Your task to perform on an android device: Open location settings Image 0: 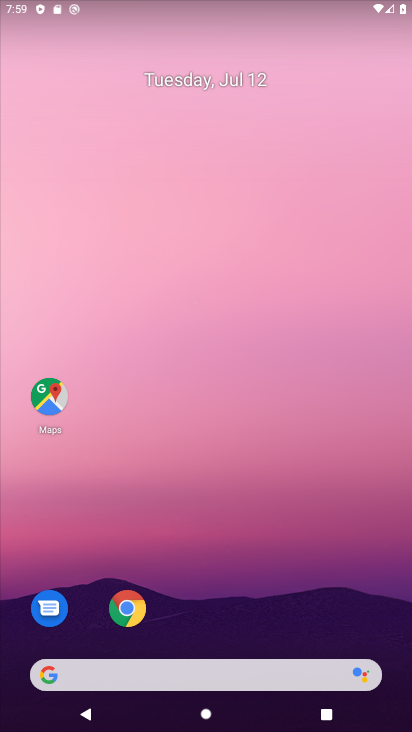
Step 0: click (242, 631)
Your task to perform on an android device: Open location settings Image 1: 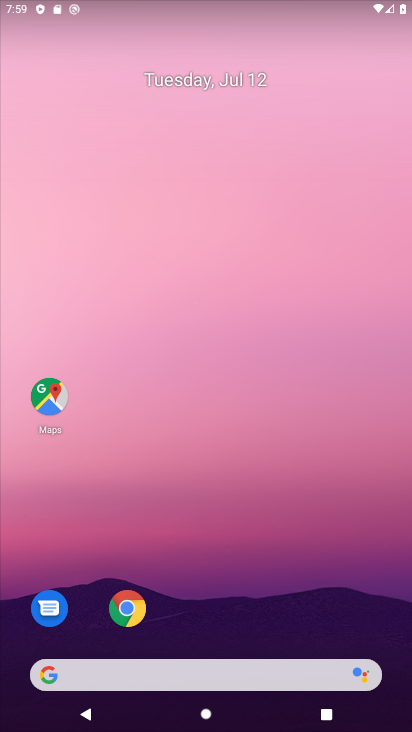
Step 1: drag from (254, 93) to (266, 545)
Your task to perform on an android device: Open location settings Image 2: 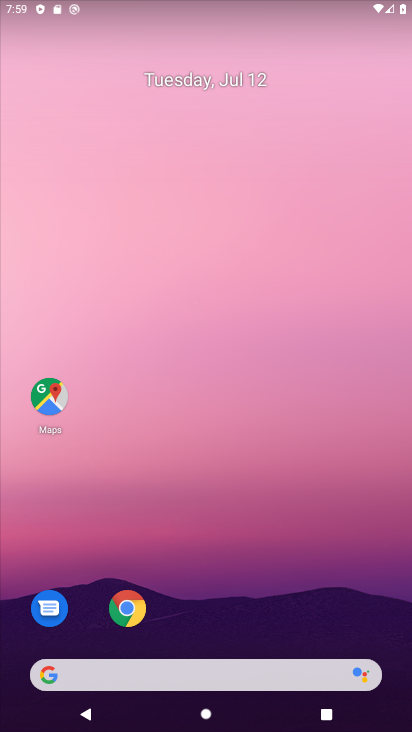
Step 2: drag from (232, 497) to (247, 628)
Your task to perform on an android device: Open location settings Image 3: 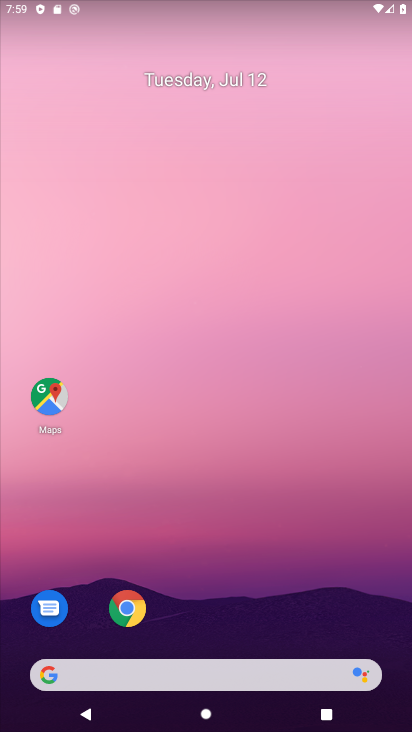
Step 3: drag from (119, 10) to (173, 555)
Your task to perform on an android device: Open location settings Image 4: 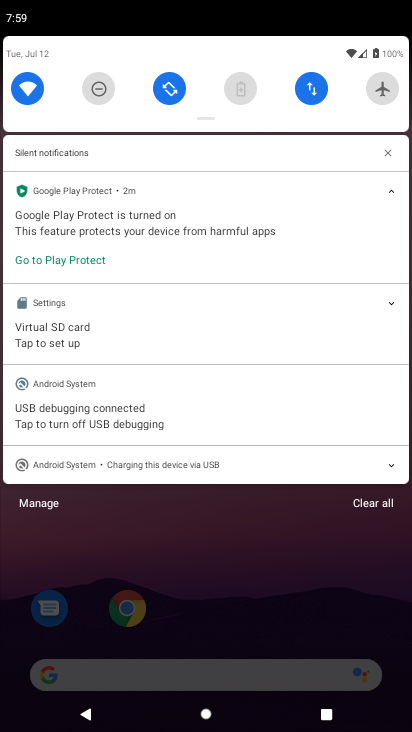
Step 4: drag from (207, 54) to (218, 607)
Your task to perform on an android device: Open location settings Image 5: 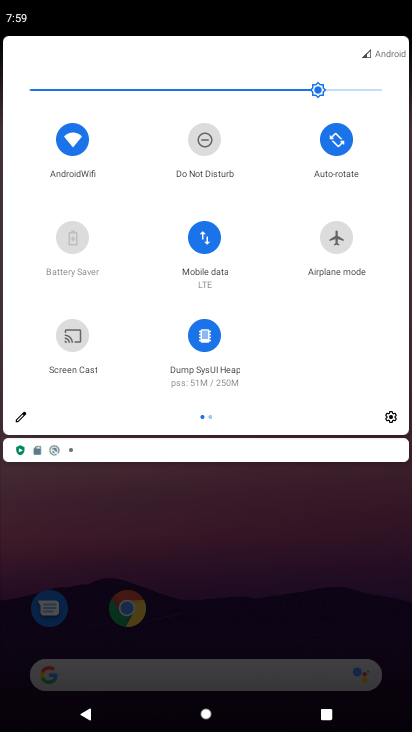
Step 5: click (382, 419)
Your task to perform on an android device: Open location settings Image 6: 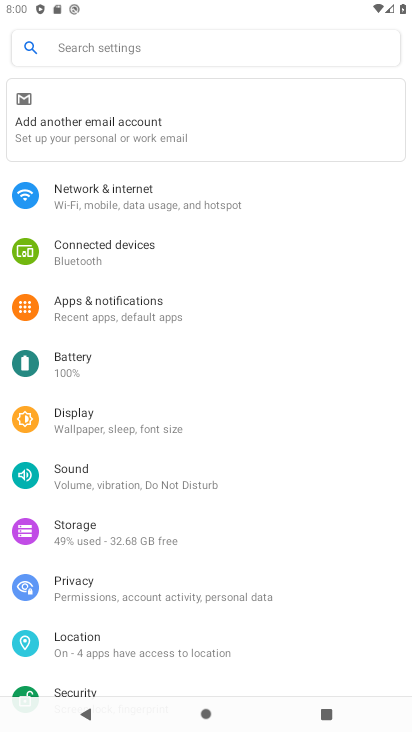
Step 6: click (74, 638)
Your task to perform on an android device: Open location settings Image 7: 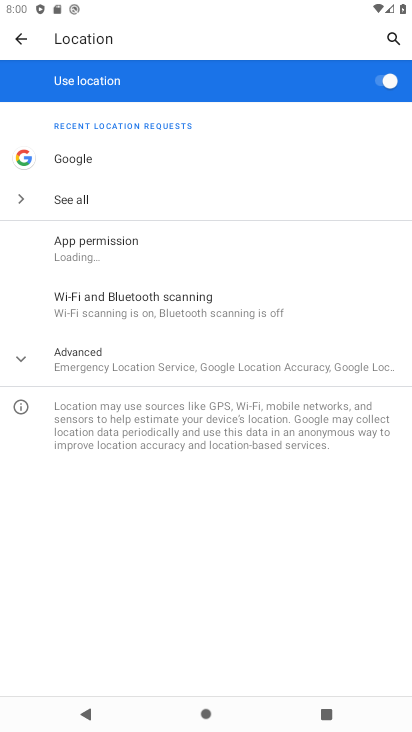
Step 7: task complete